Your task to perform on an android device: Go to sound settings Image 0: 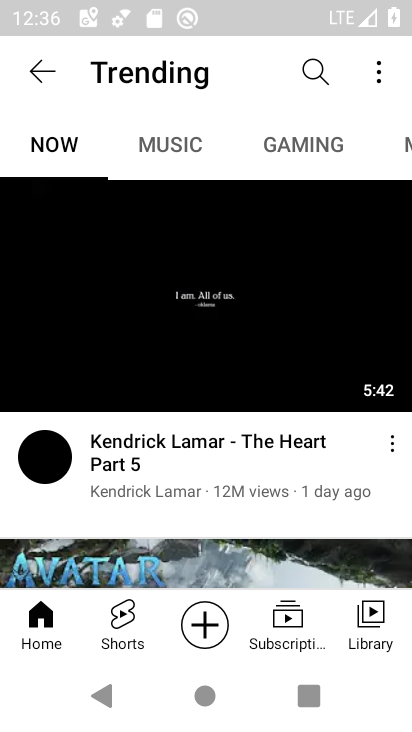
Step 0: press home button
Your task to perform on an android device: Go to sound settings Image 1: 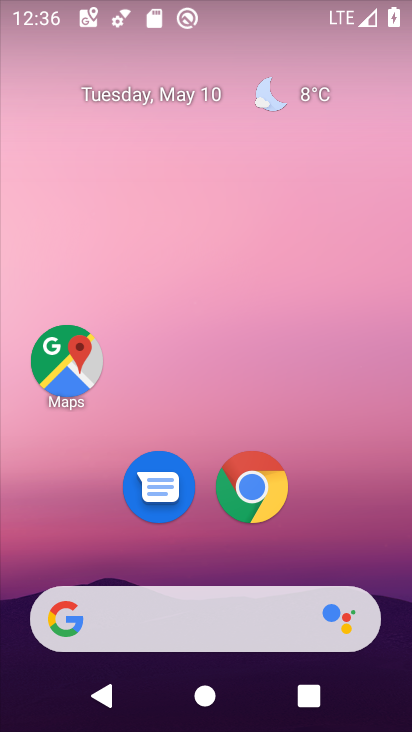
Step 1: drag from (211, 560) to (237, 61)
Your task to perform on an android device: Go to sound settings Image 2: 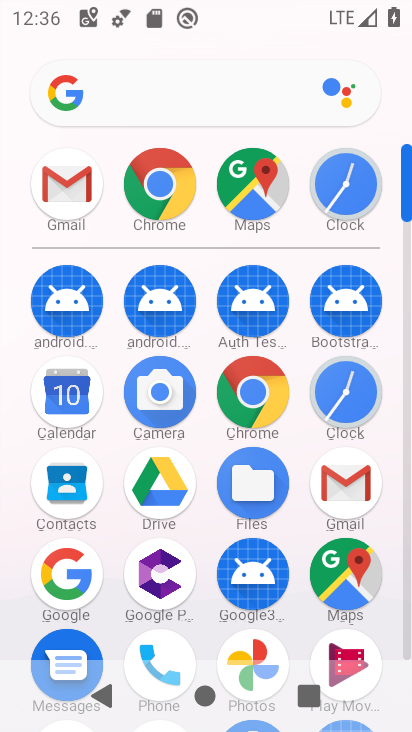
Step 2: drag from (201, 529) to (243, 80)
Your task to perform on an android device: Go to sound settings Image 3: 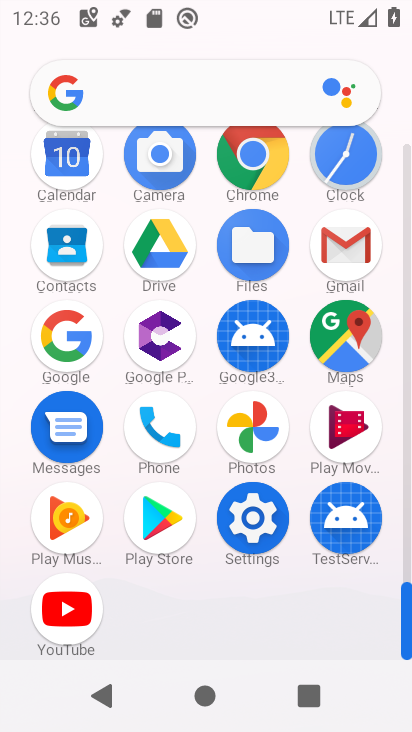
Step 3: click (249, 510)
Your task to perform on an android device: Go to sound settings Image 4: 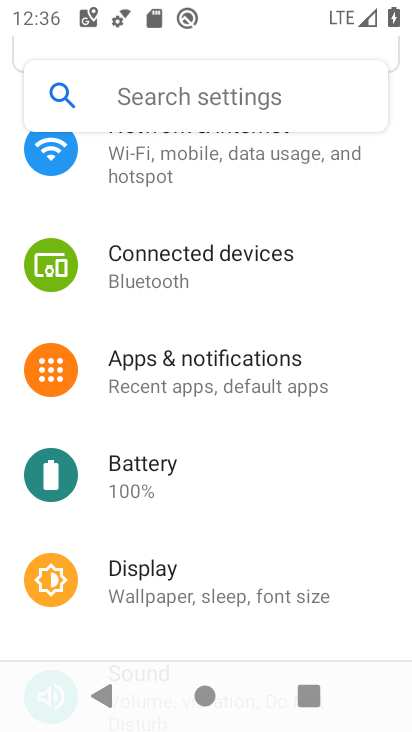
Step 4: drag from (189, 601) to (225, 159)
Your task to perform on an android device: Go to sound settings Image 5: 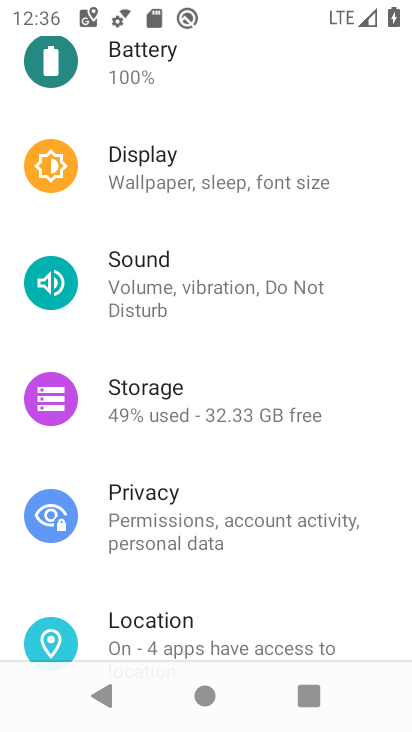
Step 5: click (177, 258)
Your task to perform on an android device: Go to sound settings Image 6: 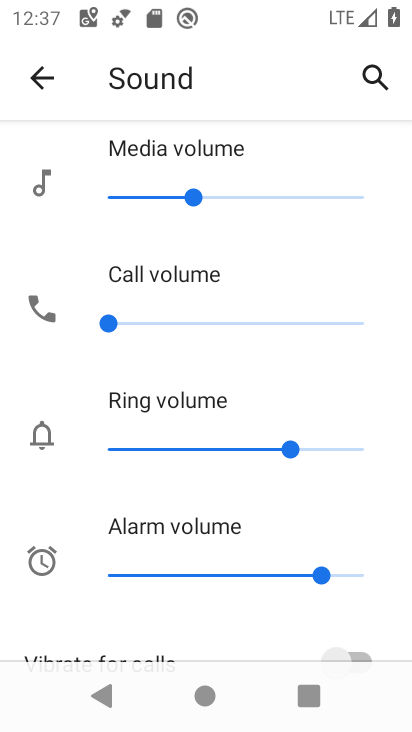
Step 6: drag from (199, 597) to (222, 124)
Your task to perform on an android device: Go to sound settings Image 7: 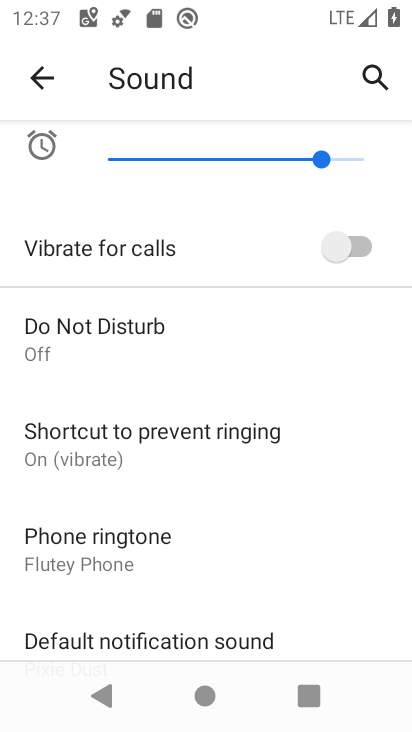
Step 7: drag from (201, 588) to (215, 127)
Your task to perform on an android device: Go to sound settings Image 8: 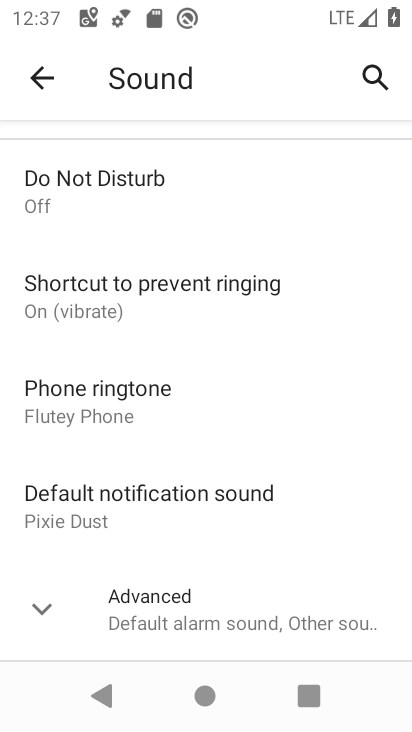
Step 8: click (40, 600)
Your task to perform on an android device: Go to sound settings Image 9: 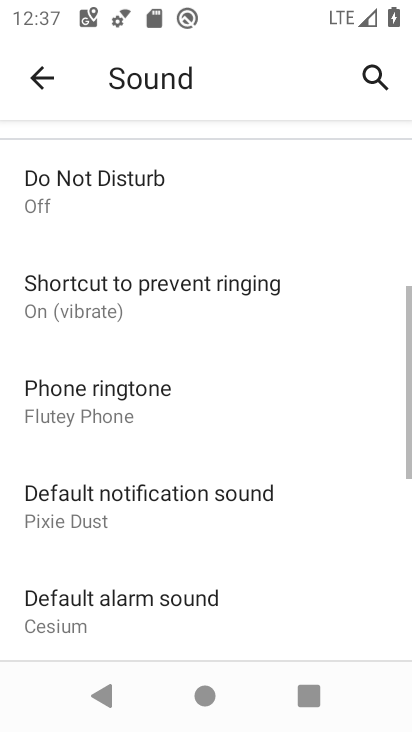
Step 9: task complete